Your task to perform on an android device: turn off priority inbox in the gmail app Image 0: 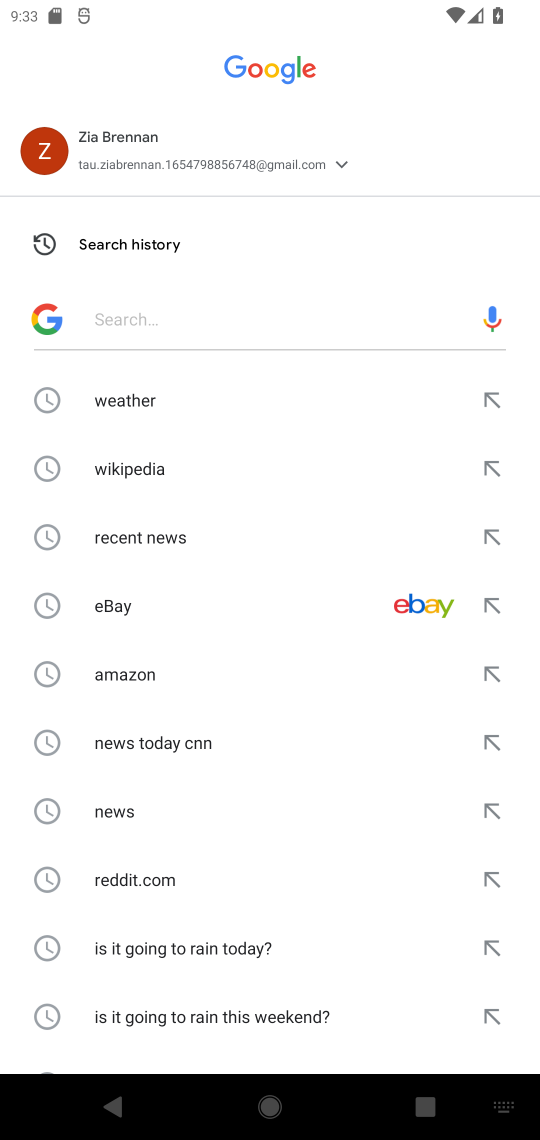
Step 0: press home button
Your task to perform on an android device: turn off priority inbox in the gmail app Image 1: 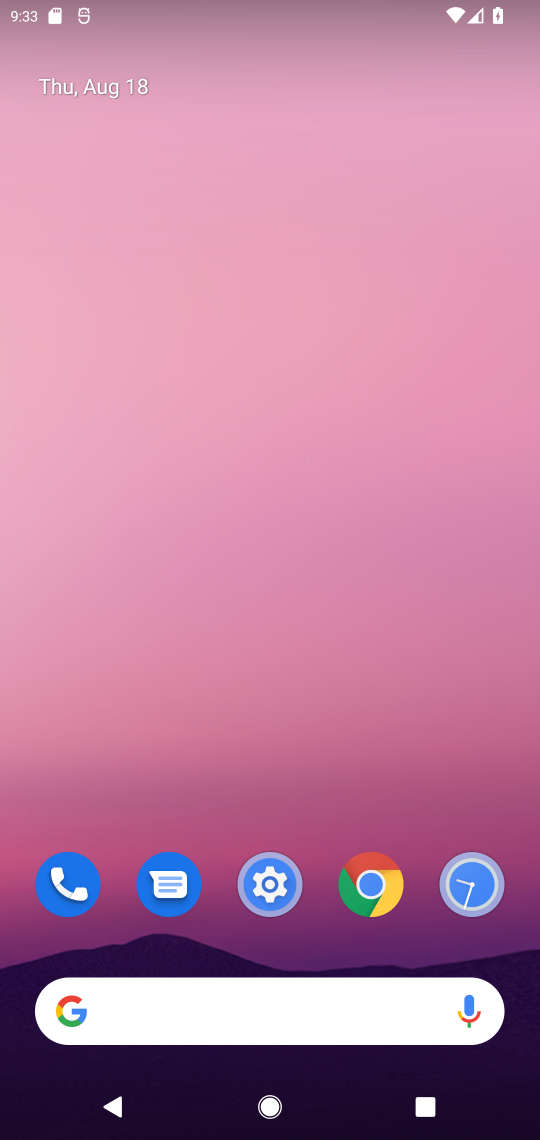
Step 1: click (265, 890)
Your task to perform on an android device: turn off priority inbox in the gmail app Image 2: 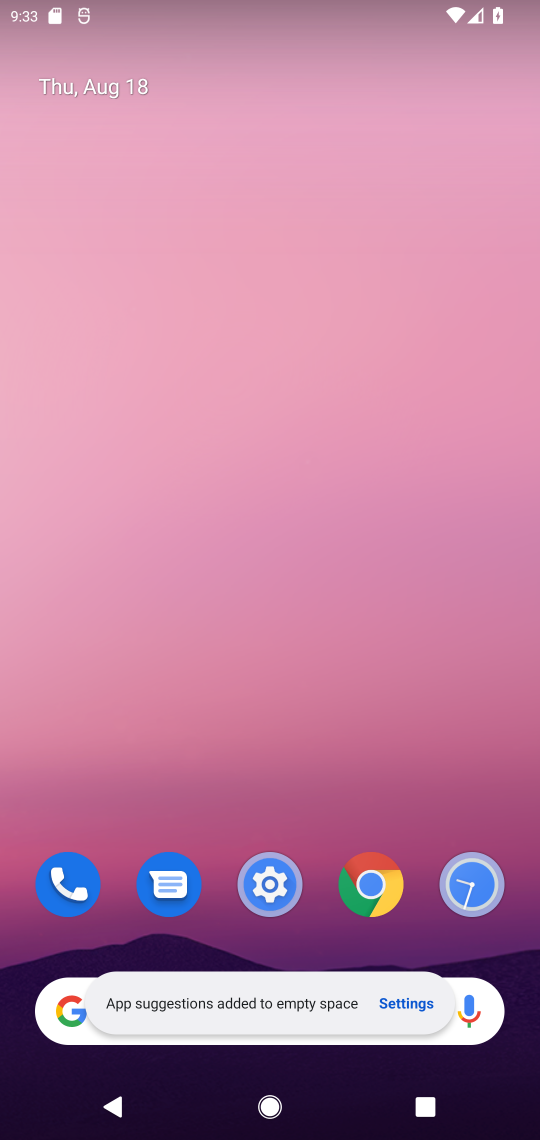
Step 2: drag from (294, 938) to (256, 29)
Your task to perform on an android device: turn off priority inbox in the gmail app Image 3: 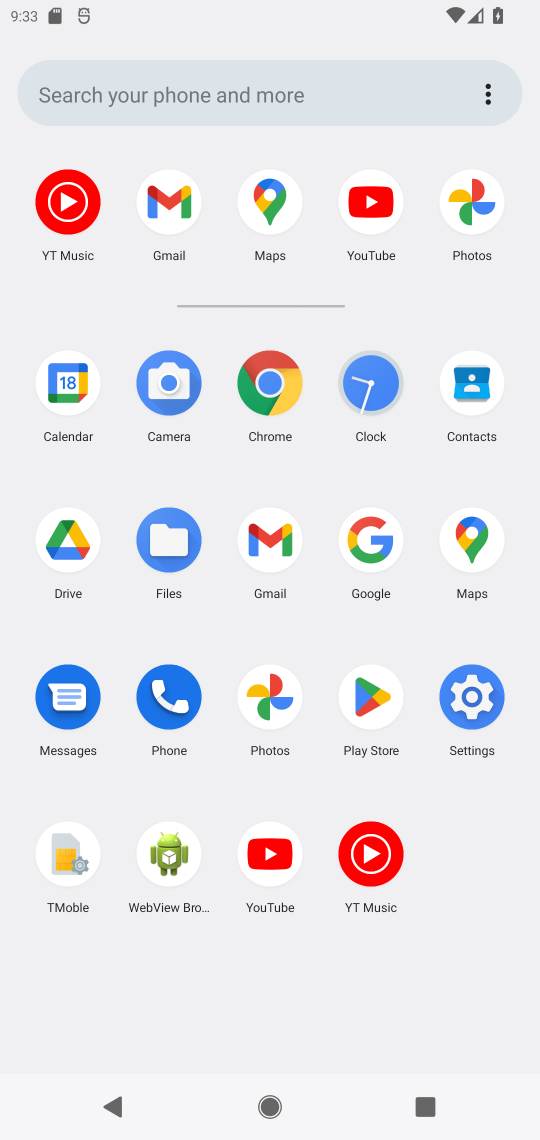
Step 3: click (164, 198)
Your task to perform on an android device: turn off priority inbox in the gmail app Image 4: 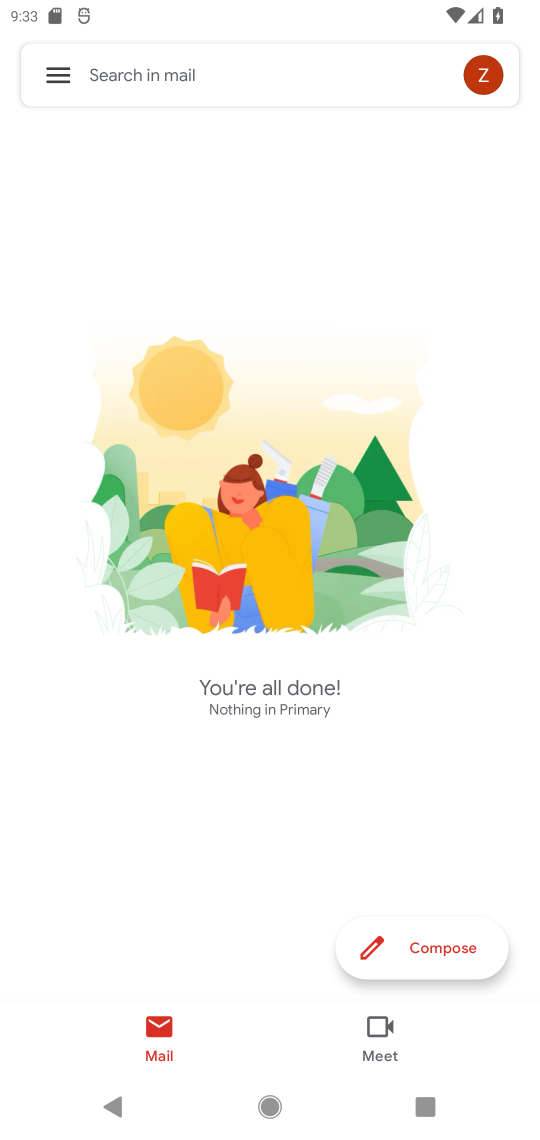
Step 4: click (46, 39)
Your task to perform on an android device: turn off priority inbox in the gmail app Image 5: 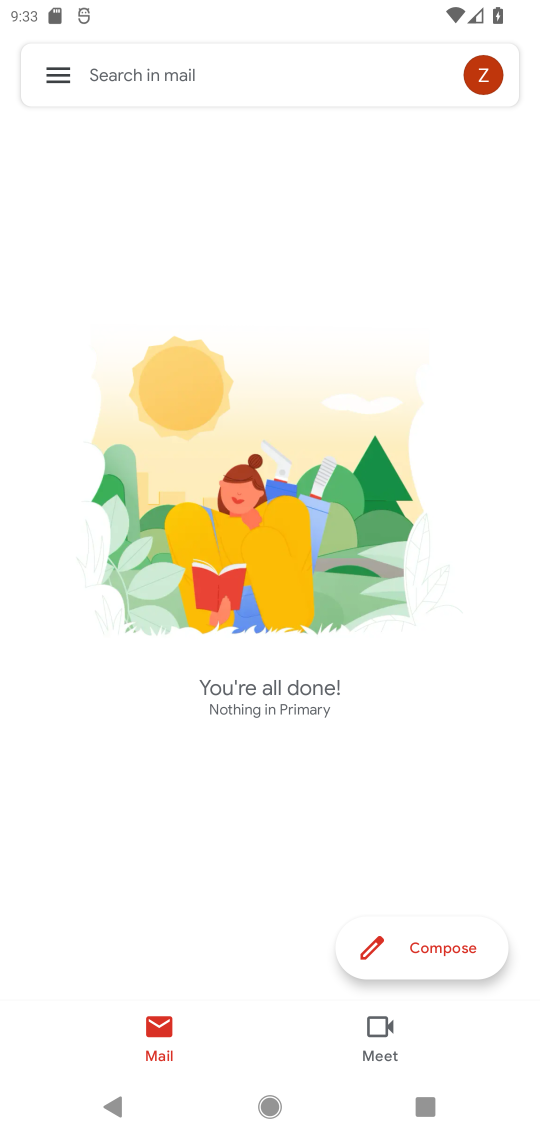
Step 5: click (62, 82)
Your task to perform on an android device: turn off priority inbox in the gmail app Image 6: 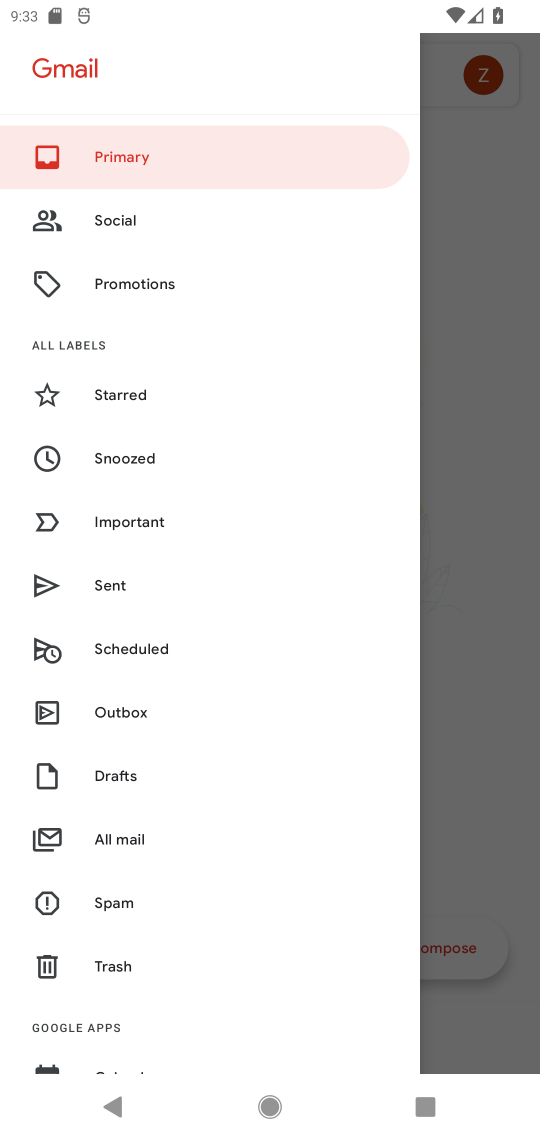
Step 6: drag from (79, 1045) to (228, 5)
Your task to perform on an android device: turn off priority inbox in the gmail app Image 7: 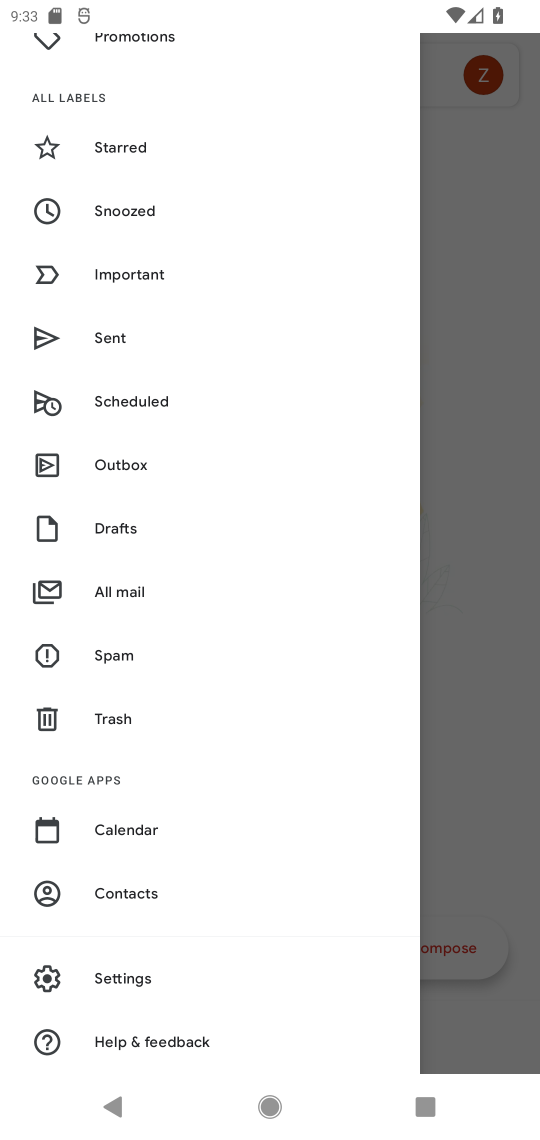
Step 7: click (145, 986)
Your task to perform on an android device: turn off priority inbox in the gmail app Image 8: 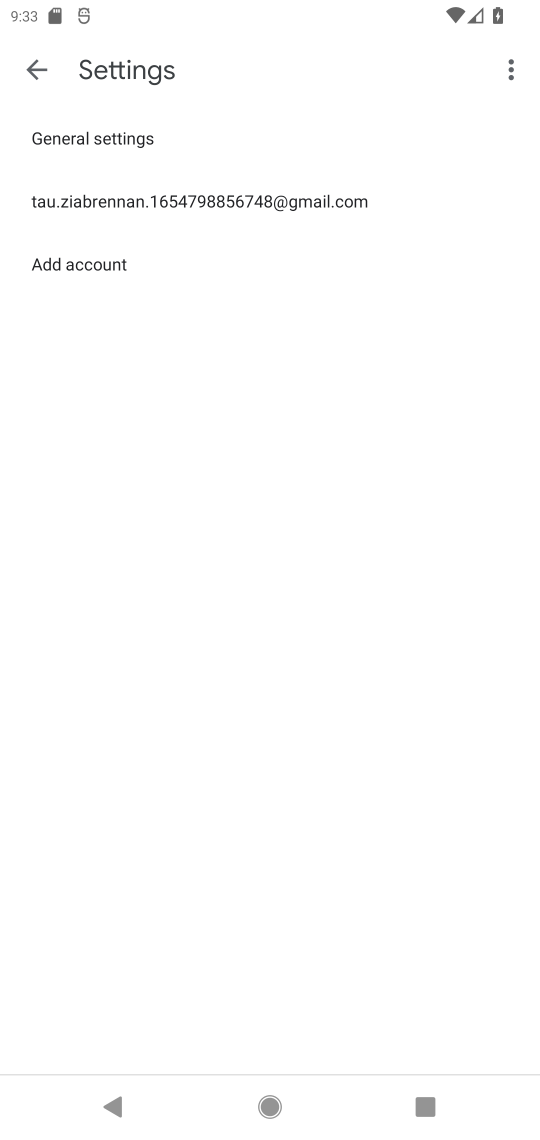
Step 8: click (295, 191)
Your task to perform on an android device: turn off priority inbox in the gmail app Image 9: 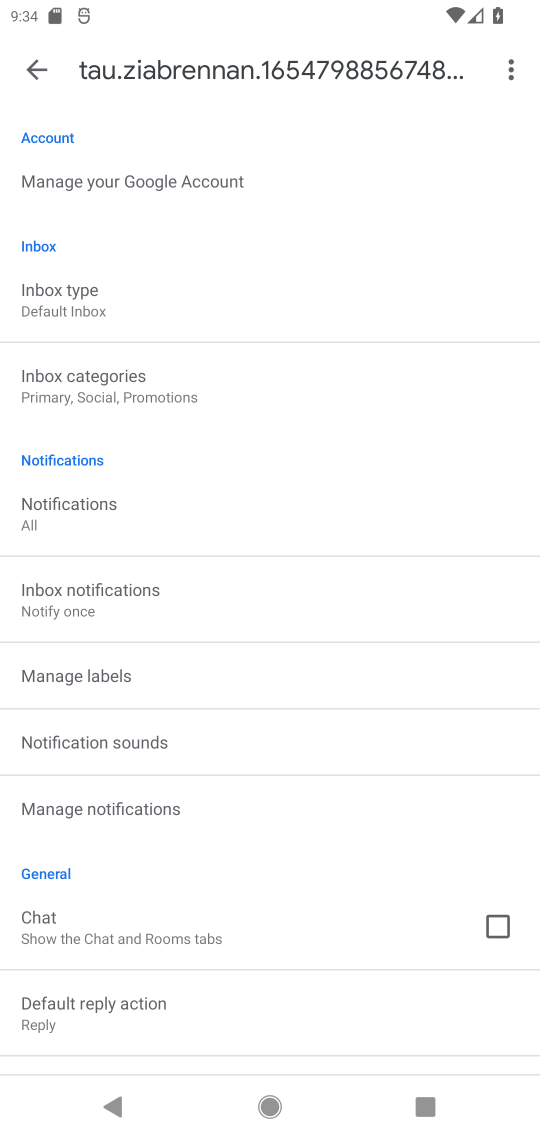
Step 9: click (67, 304)
Your task to perform on an android device: turn off priority inbox in the gmail app Image 10: 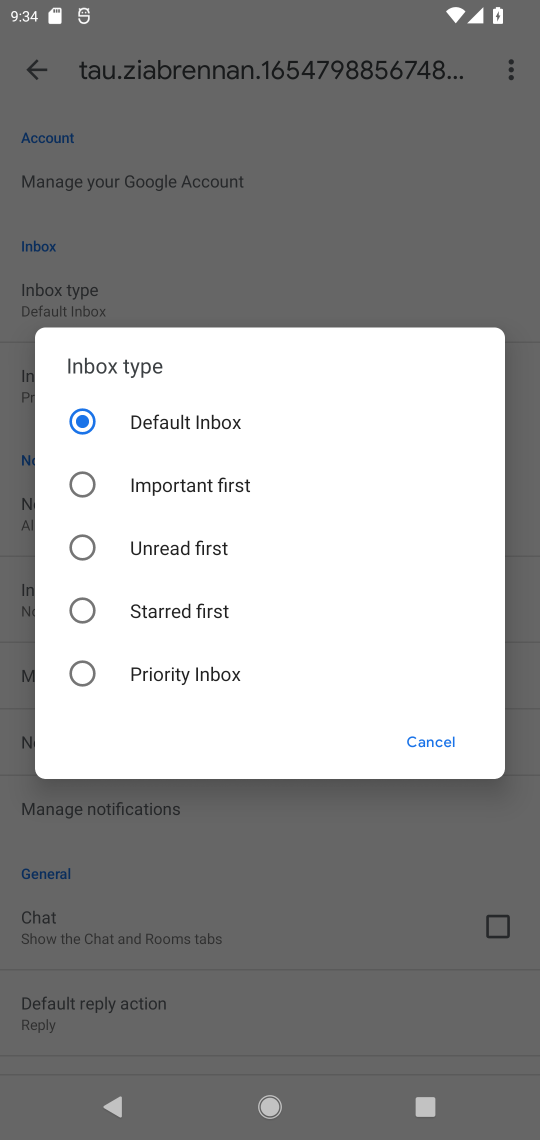
Step 10: task complete